Your task to perform on an android device: turn on bluetooth scan Image 0: 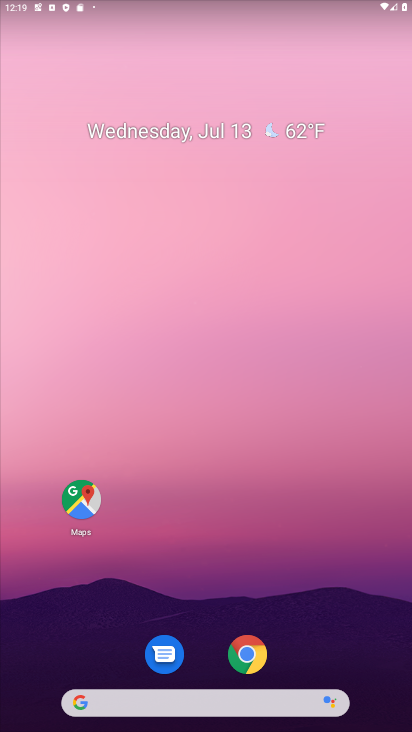
Step 0: drag from (233, 697) to (239, 95)
Your task to perform on an android device: turn on bluetooth scan Image 1: 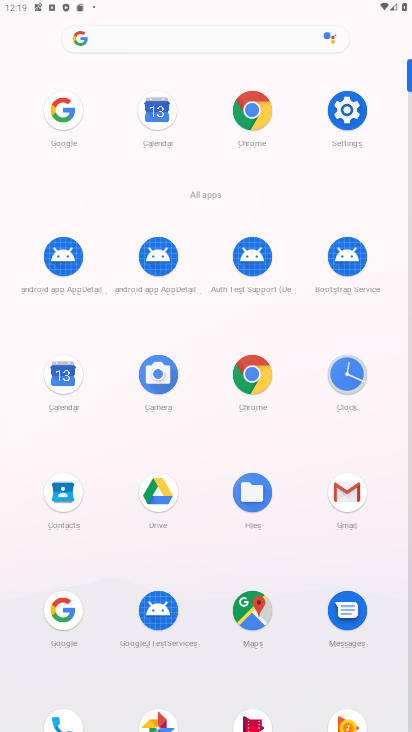
Step 1: click (350, 111)
Your task to perform on an android device: turn on bluetooth scan Image 2: 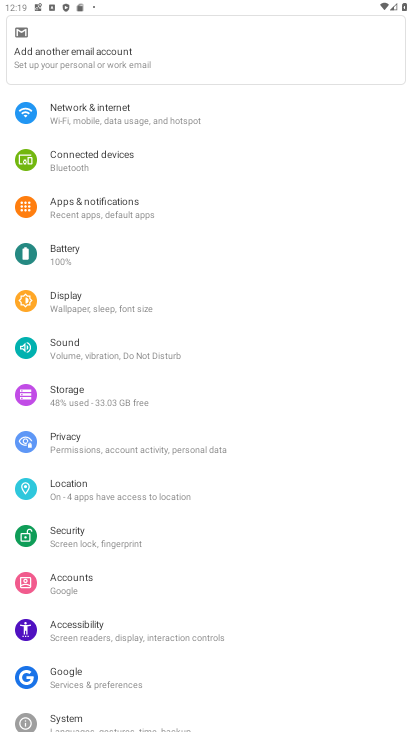
Step 2: click (87, 492)
Your task to perform on an android device: turn on bluetooth scan Image 3: 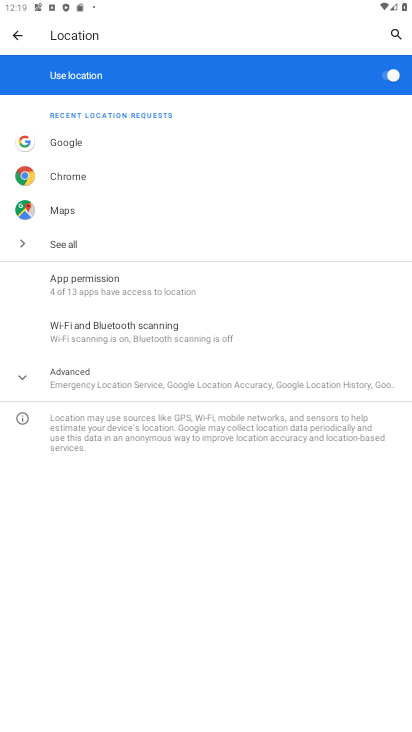
Step 3: click (91, 382)
Your task to perform on an android device: turn on bluetooth scan Image 4: 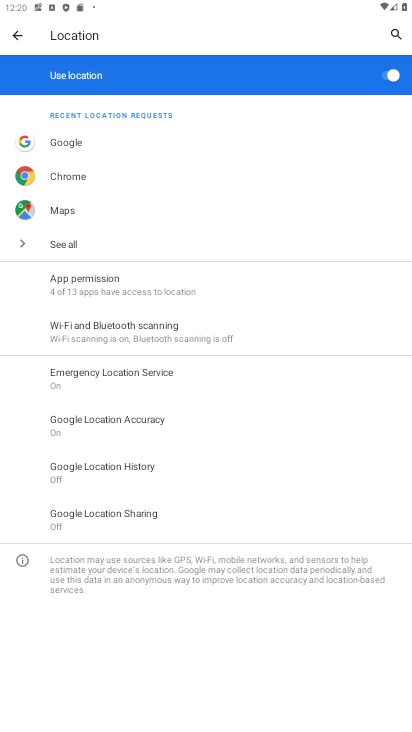
Step 4: click (142, 332)
Your task to perform on an android device: turn on bluetooth scan Image 5: 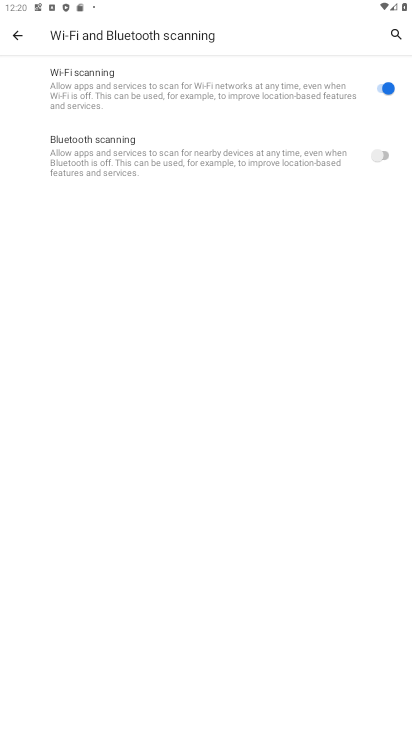
Step 5: click (381, 153)
Your task to perform on an android device: turn on bluetooth scan Image 6: 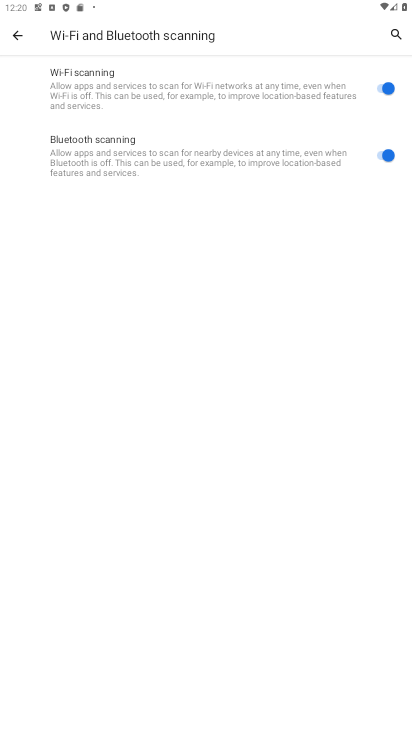
Step 6: task complete